Your task to perform on an android device: Open Reddit.com Image 0: 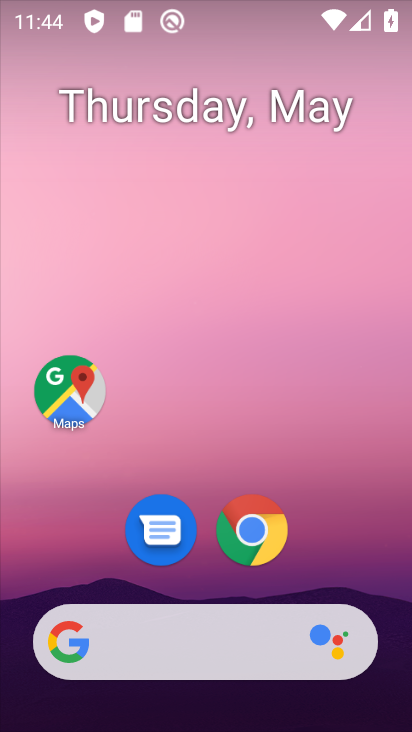
Step 0: drag from (245, 577) to (278, 355)
Your task to perform on an android device: Open Reddit.com Image 1: 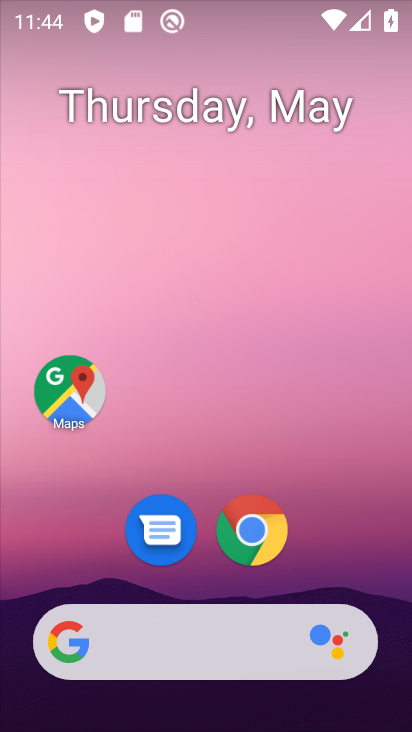
Step 1: drag from (168, 606) to (256, 290)
Your task to perform on an android device: Open Reddit.com Image 2: 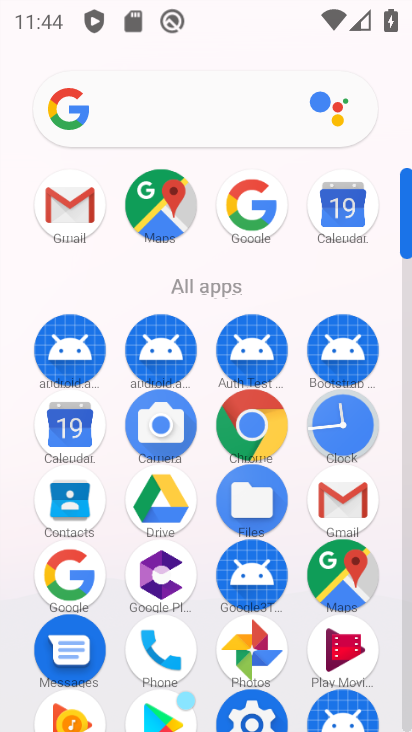
Step 2: click (43, 576)
Your task to perform on an android device: Open Reddit.com Image 3: 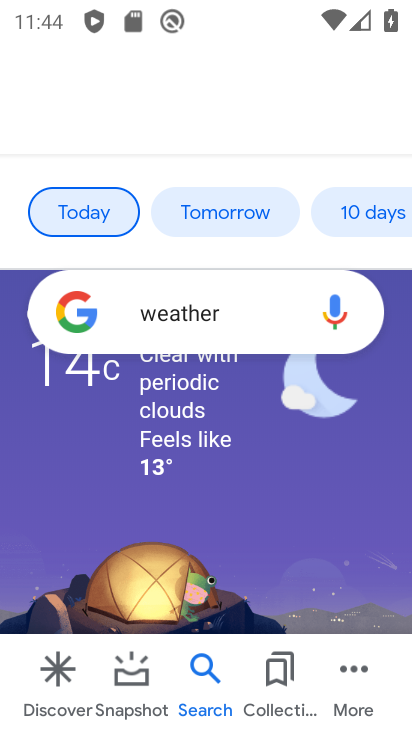
Step 3: click (171, 119)
Your task to perform on an android device: Open Reddit.com Image 4: 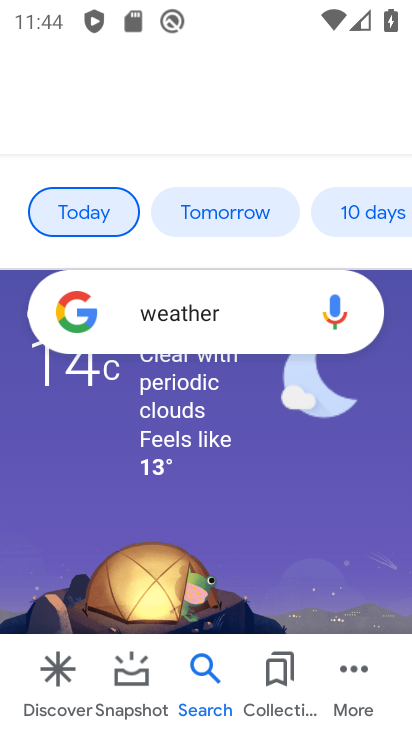
Step 4: click (76, 128)
Your task to perform on an android device: Open Reddit.com Image 5: 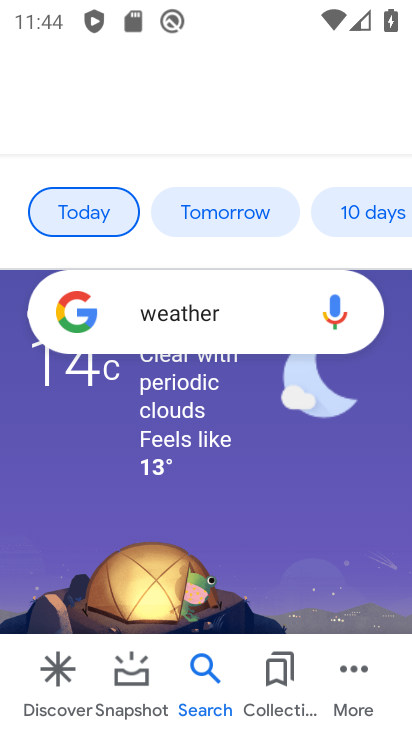
Step 5: drag from (175, 443) to (183, 167)
Your task to perform on an android device: Open Reddit.com Image 6: 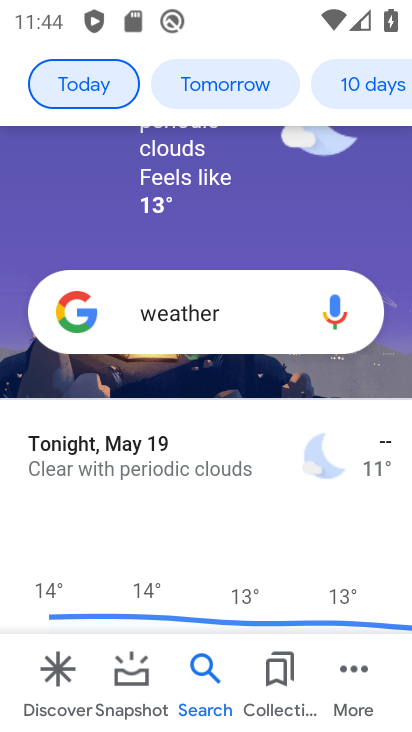
Step 6: drag from (186, 160) to (183, 473)
Your task to perform on an android device: Open Reddit.com Image 7: 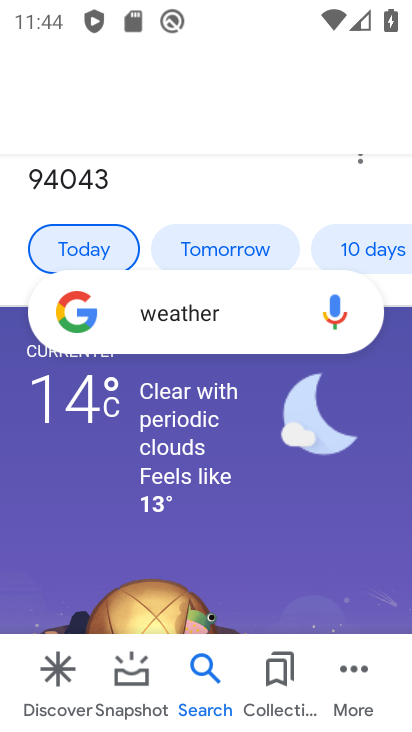
Step 7: click (141, 135)
Your task to perform on an android device: Open Reddit.com Image 8: 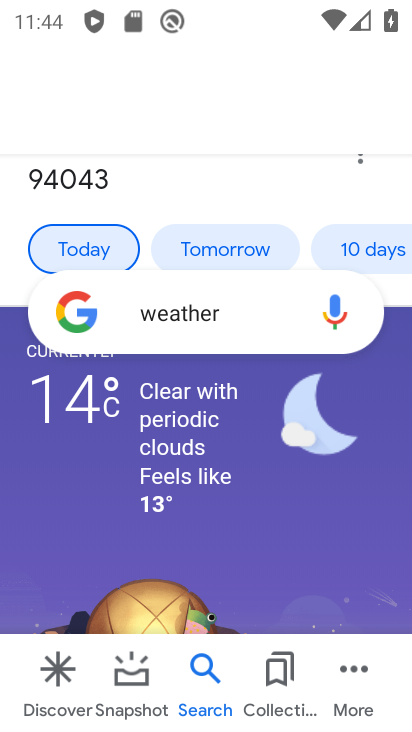
Step 8: press back button
Your task to perform on an android device: Open Reddit.com Image 9: 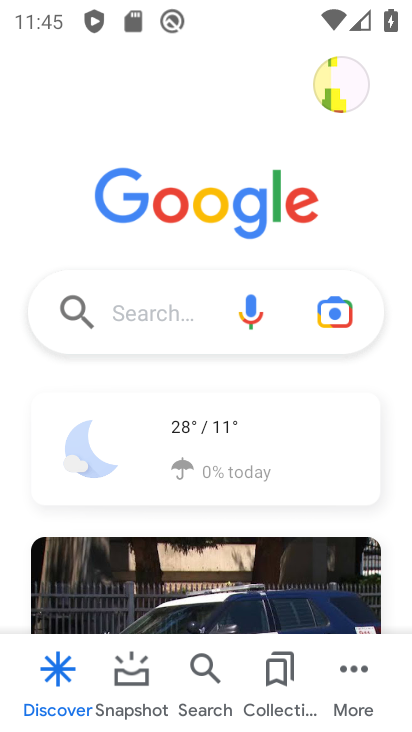
Step 9: click (170, 322)
Your task to perform on an android device: Open Reddit.com Image 10: 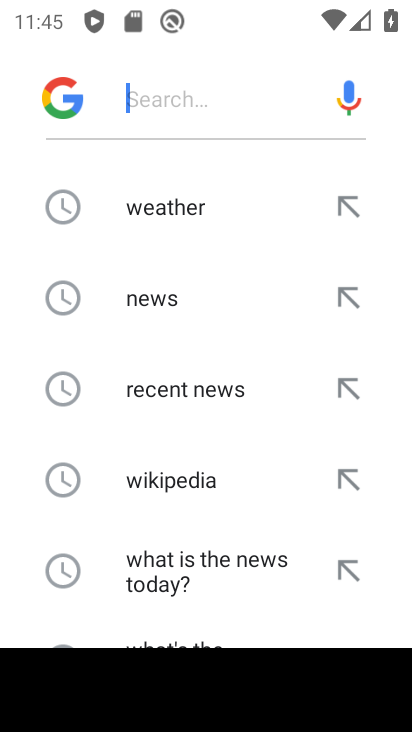
Step 10: drag from (180, 547) to (199, 189)
Your task to perform on an android device: Open Reddit.com Image 11: 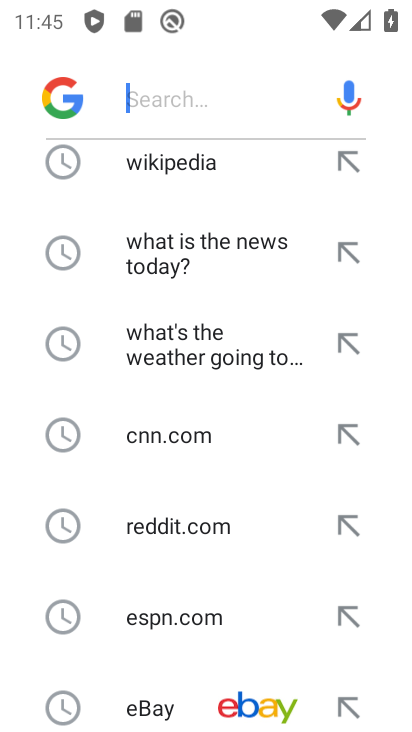
Step 11: click (156, 527)
Your task to perform on an android device: Open Reddit.com Image 12: 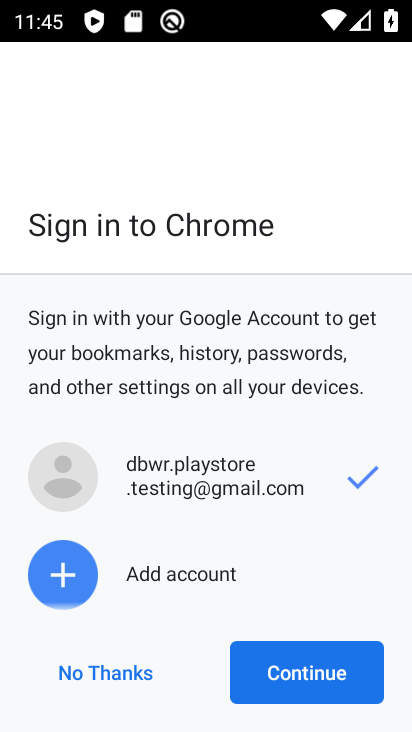
Step 12: click (293, 668)
Your task to perform on an android device: Open Reddit.com Image 13: 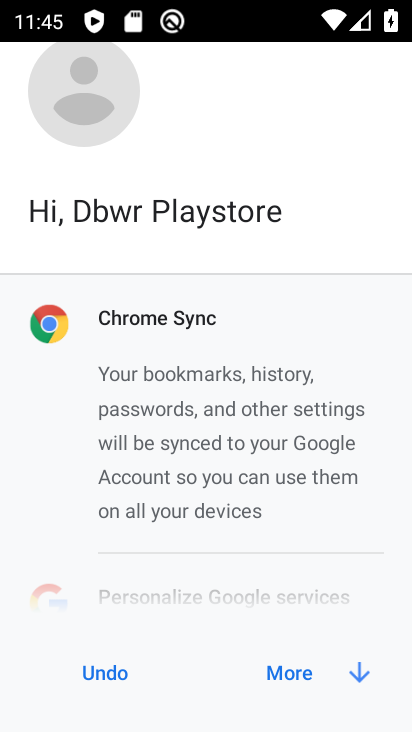
Step 13: click (293, 667)
Your task to perform on an android device: Open Reddit.com Image 14: 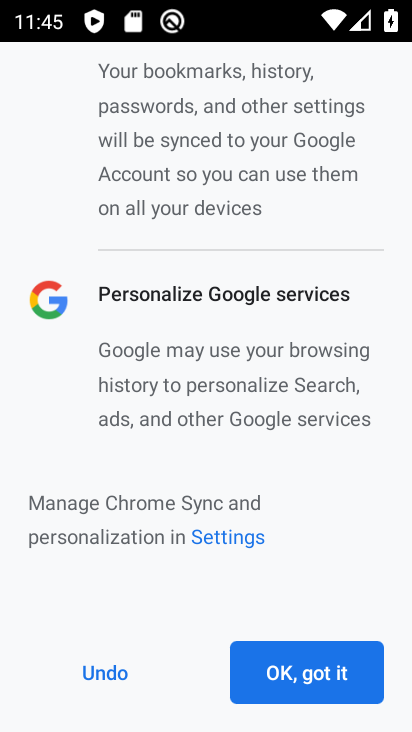
Step 14: click (292, 665)
Your task to perform on an android device: Open Reddit.com Image 15: 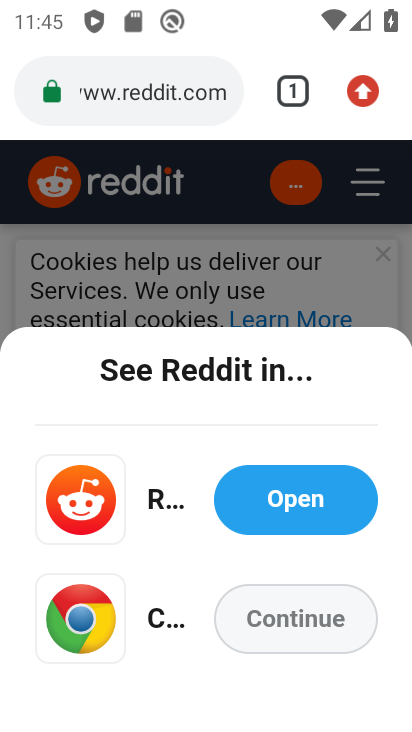
Step 15: task complete